Your task to perform on an android device: Search for sushi restaurants on Maps Image 0: 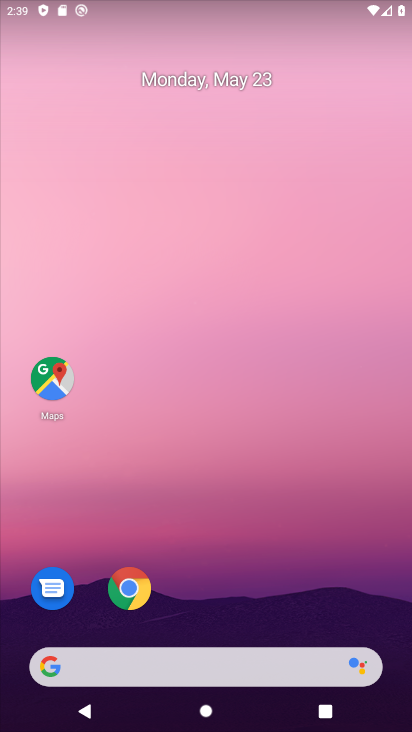
Step 0: drag from (237, 720) to (184, 136)
Your task to perform on an android device: Search for sushi restaurants on Maps Image 1: 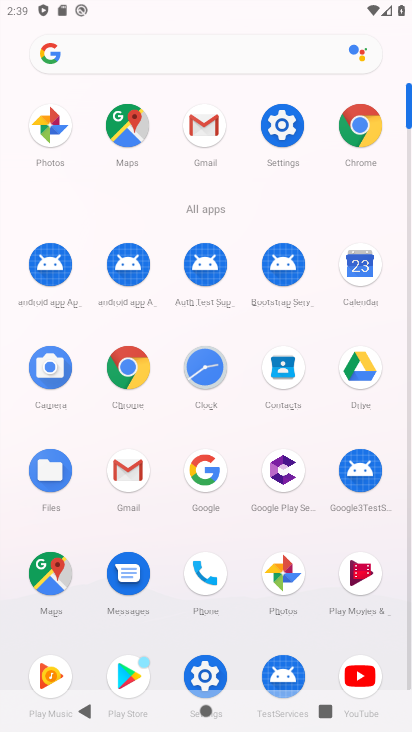
Step 1: click (39, 569)
Your task to perform on an android device: Search for sushi restaurants on Maps Image 2: 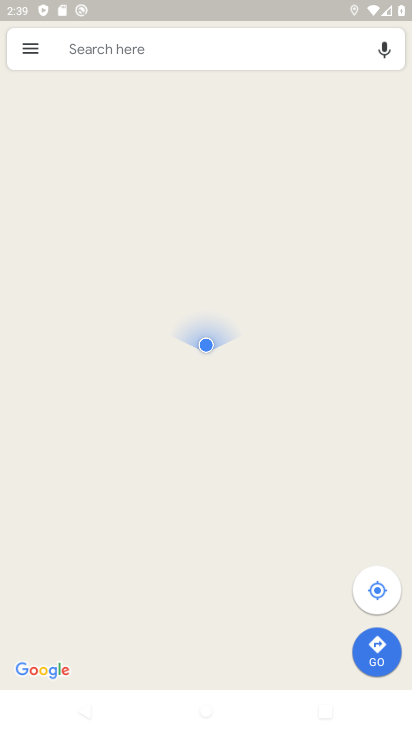
Step 2: click (139, 36)
Your task to perform on an android device: Search for sushi restaurants on Maps Image 3: 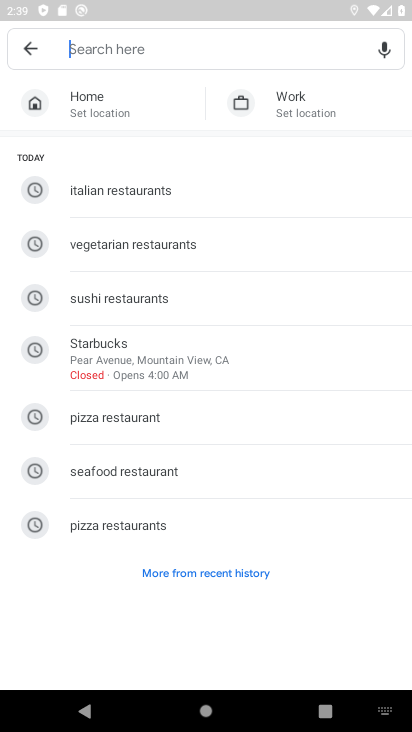
Step 3: type "sushi restaurants"
Your task to perform on an android device: Search for sushi restaurants on Maps Image 4: 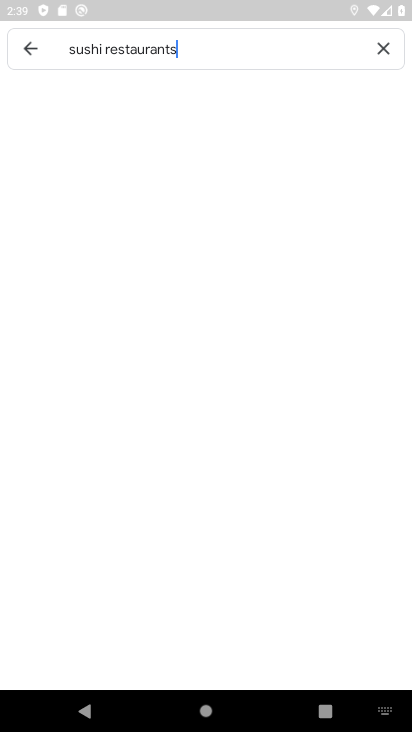
Step 4: type ""
Your task to perform on an android device: Search for sushi restaurants on Maps Image 5: 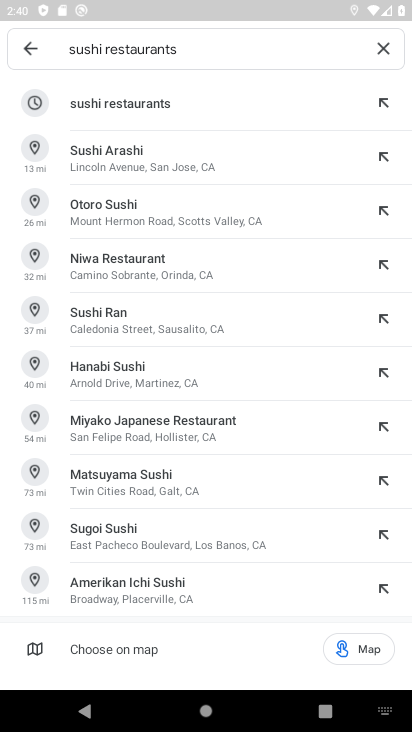
Step 5: click (130, 105)
Your task to perform on an android device: Search for sushi restaurants on Maps Image 6: 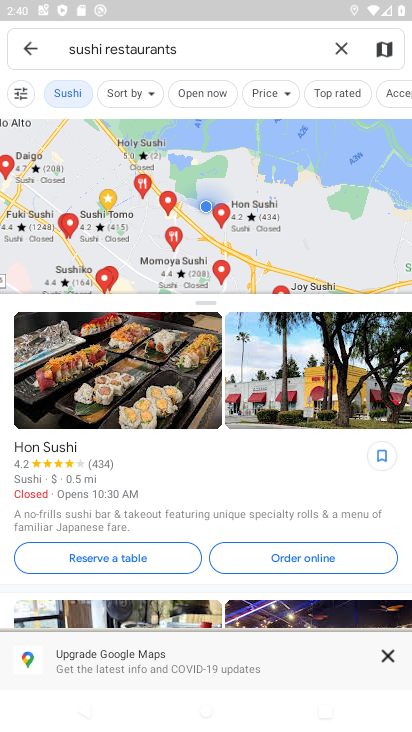
Step 6: task complete